Your task to perform on an android device: add a label to a message in the gmail app Image 0: 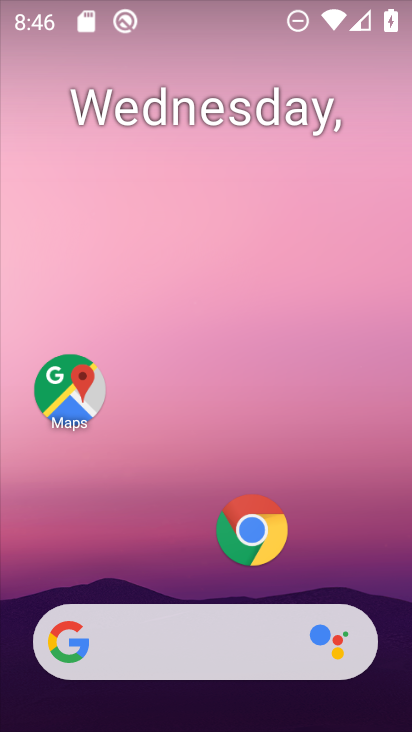
Step 0: drag from (166, 541) to (244, 61)
Your task to perform on an android device: add a label to a message in the gmail app Image 1: 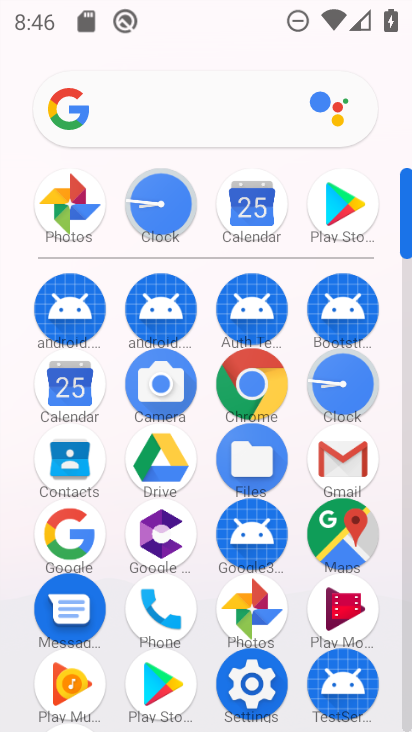
Step 1: click (344, 455)
Your task to perform on an android device: add a label to a message in the gmail app Image 2: 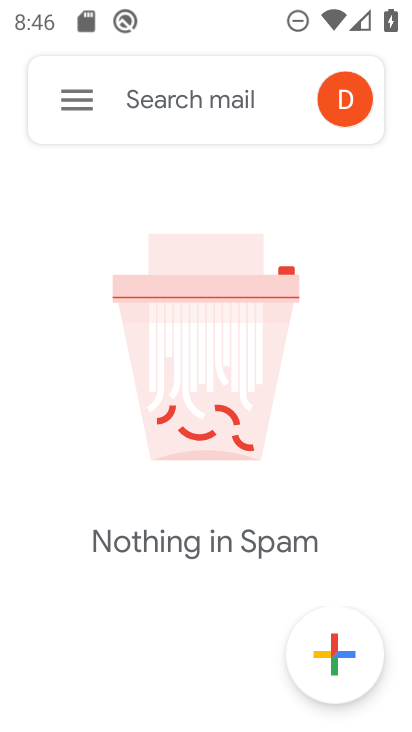
Step 2: click (73, 98)
Your task to perform on an android device: add a label to a message in the gmail app Image 3: 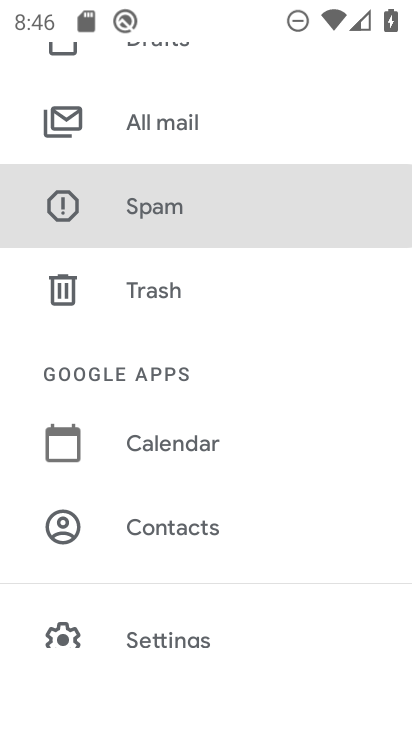
Step 3: click (161, 117)
Your task to perform on an android device: add a label to a message in the gmail app Image 4: 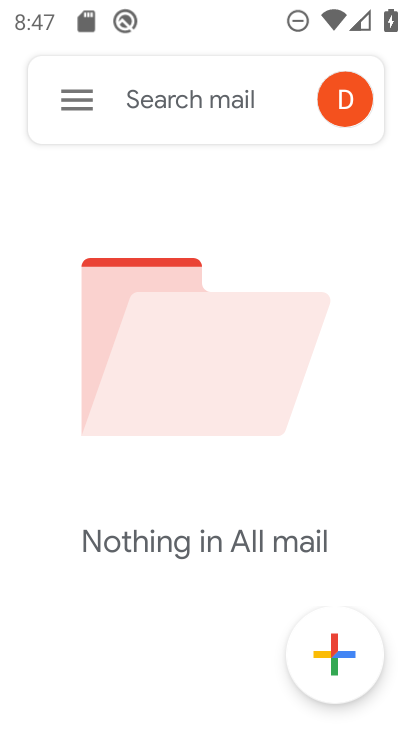
Step 4: task complete